Your task to perform on an android device: manage bookmarks in the chrome app Image 0: 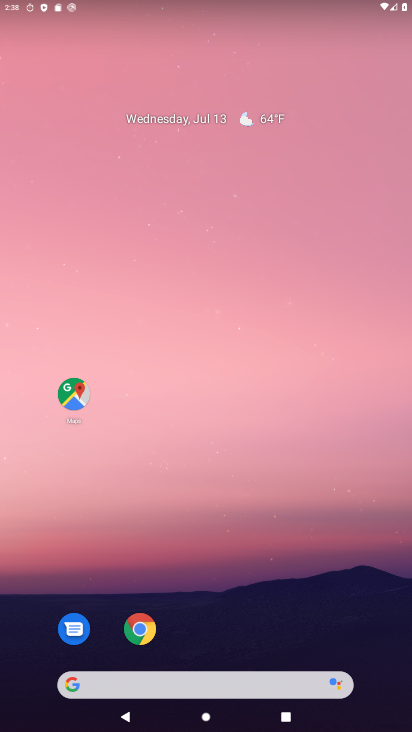
Step 0: drag from (289, 694) to (244, 59)
Your task to perform on an android device: manage bookmarks in the chrome app Image 1: 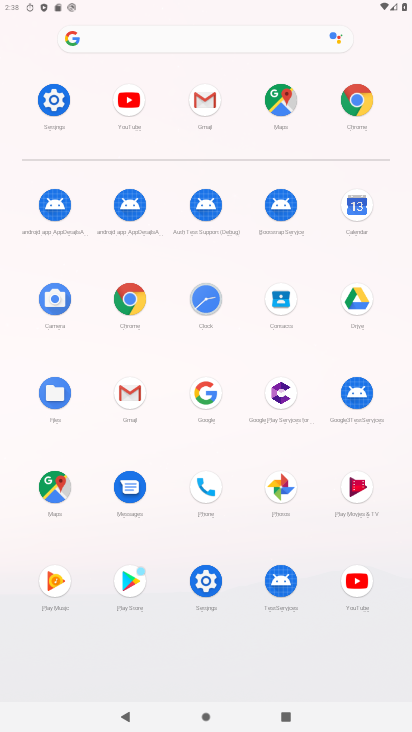
Step 1: click (141, 294)
Your task to perform on an android device: manage bookmarks in the chrome app Image 2: 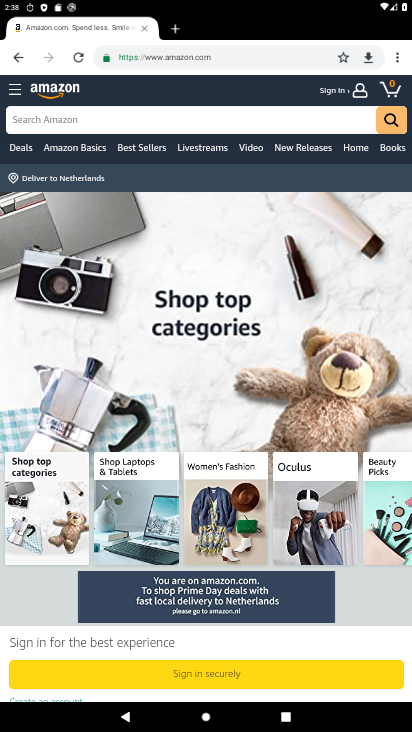
Step 2: task complete